Your task to perform on an android device: Is it going to rain this weekend? Image 0: 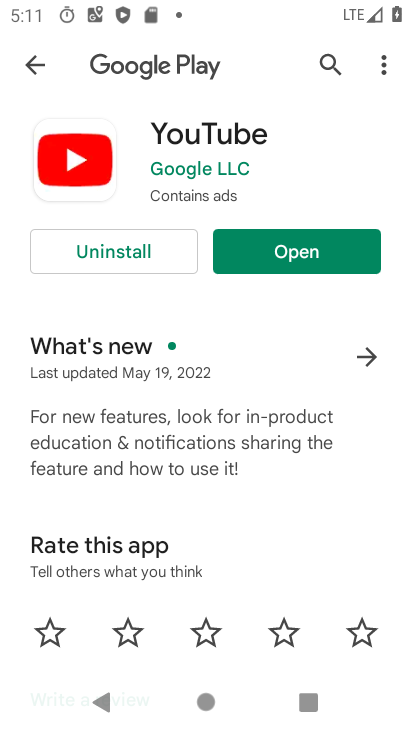
Step 0: press home button
Your task to perform on an android device: Is it going to rain this weekend? Image 1: 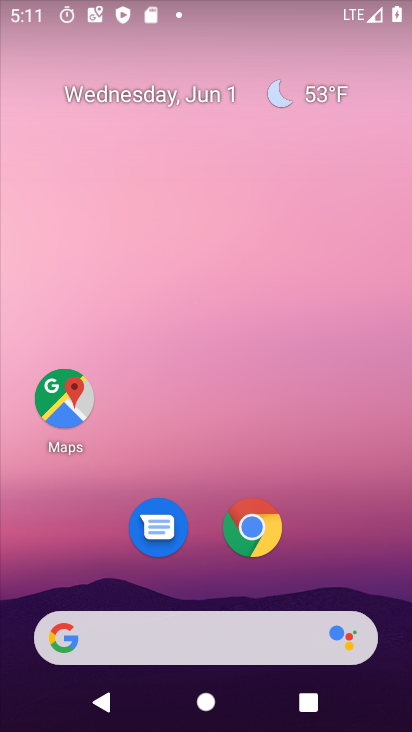
Step 1: click (254, 526)
Your task to perform on an android device: Is it going to rain this weekend? Image 2: 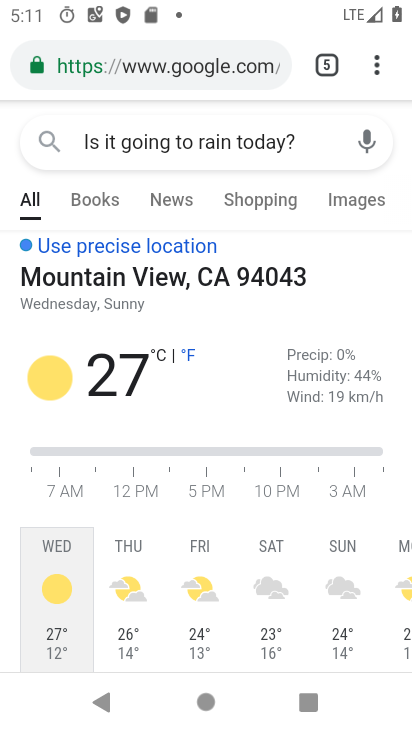
Step 2: click (210, 65)
Your task to perform on an android device: Is it going to rain this weekend? Image 3: 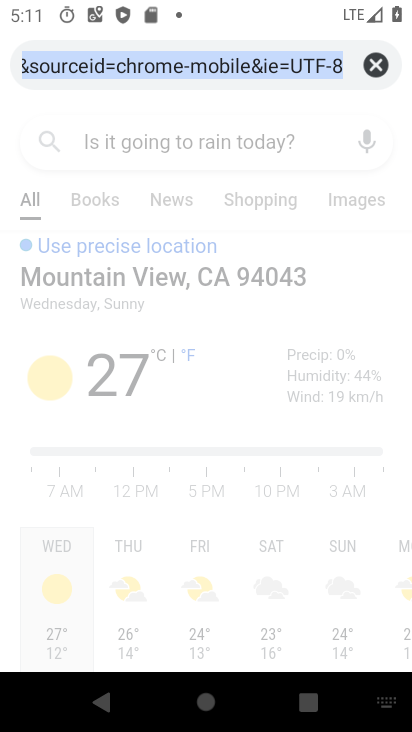
Step 3: click (373, 55)
Your task to perform on an android device: Is it going to rain this weekend? Image 4: 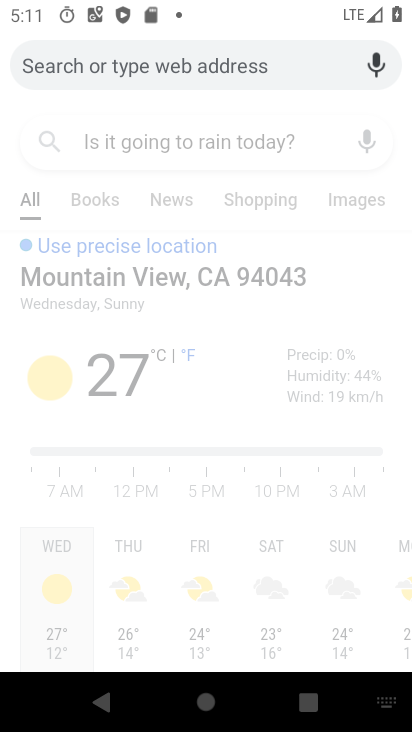
Step 4: type "Is it going to rain this weekend?"
Your task to perform on an android device: Is it going to rain this weekend? Image 5: 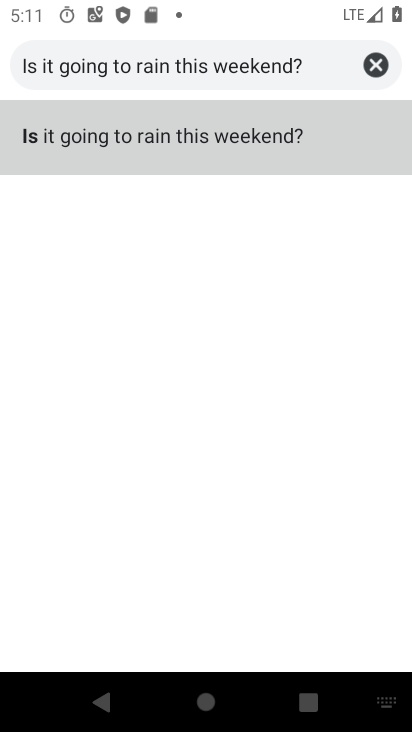
Step 5: click (250, 134)
Your task to perform on an android device: Is it going to rain this weekend? Image 6: 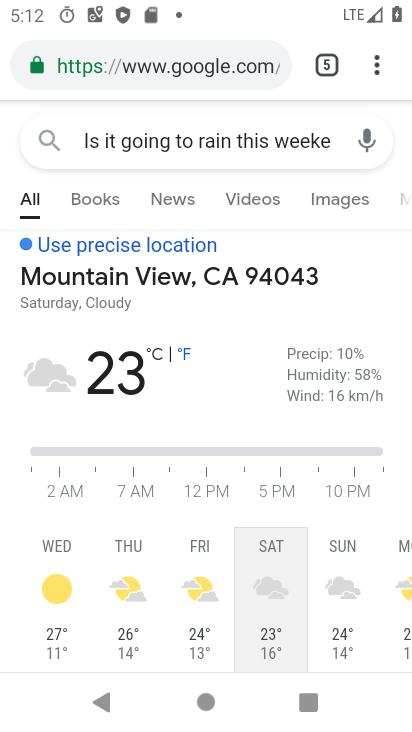
Step 6: task complete